Your task to perform on an android device: Open maps Image 0: 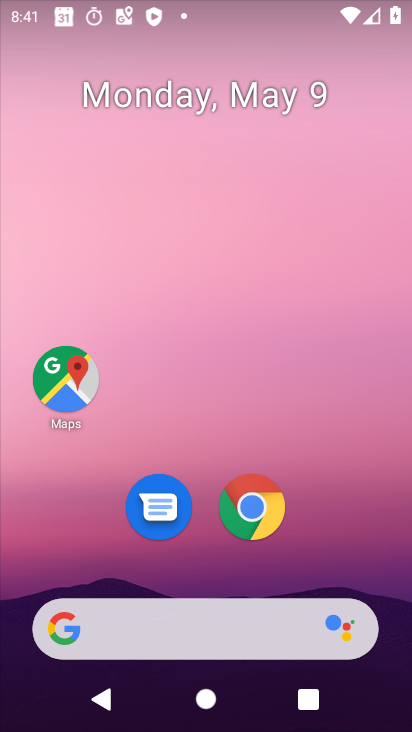
Step 0: drag from (255, 669) to (194, 384)
Your task to perform on an android device: Open maps Image 1: 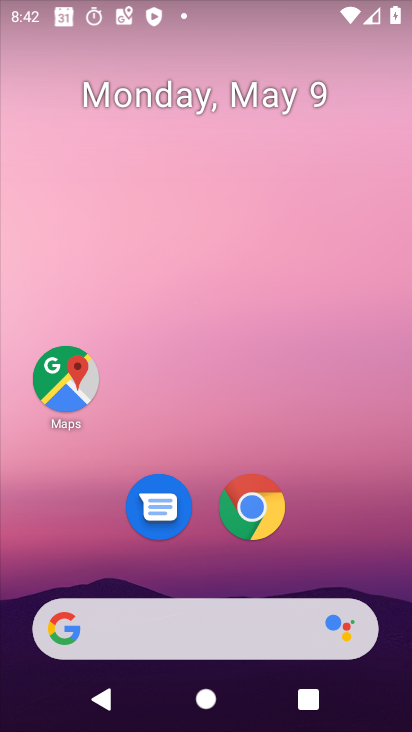
Step 1: click (72, 378)
Your task to perform on an android device: Open maps Image 2: 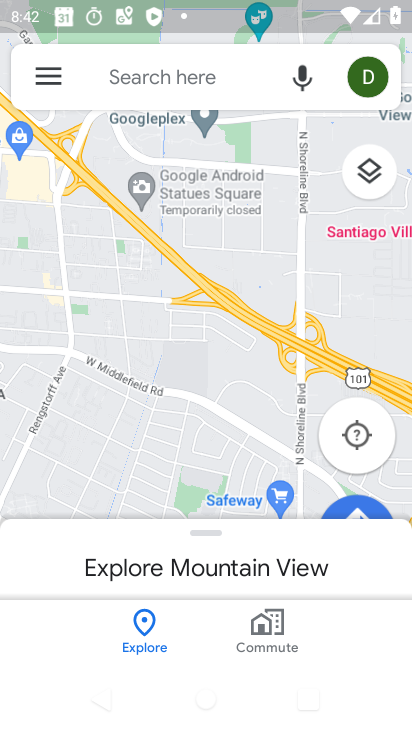
Step 2: click (191, 341)
Your task to perform on an android device: Open maps Image 3: 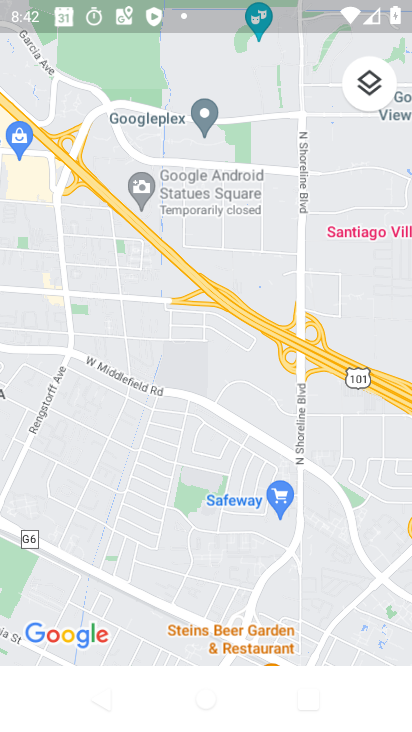
Step 3: task complete